Your task to perform on an android device: Show me popular games on the Play Store Image 0: 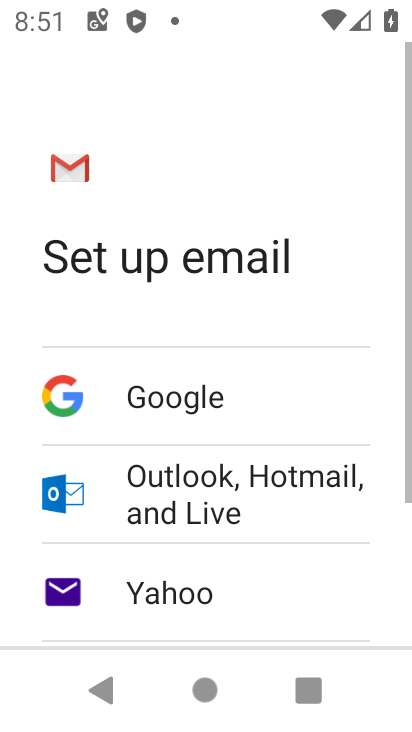
Step 0: press home button
Your task to perform on an android device: Show me popular games on the Play Store Image 1: 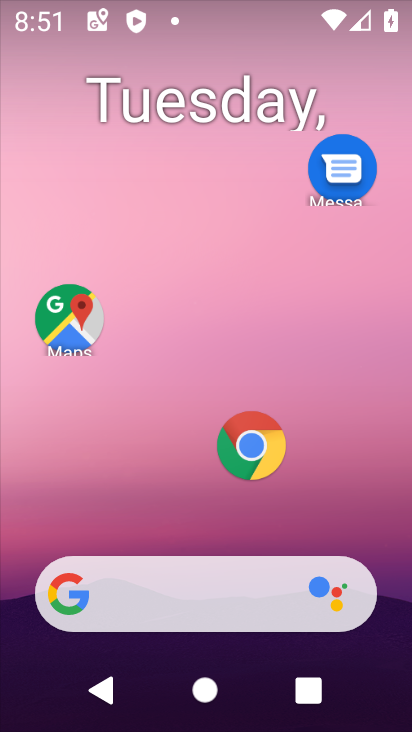
Step 1: drag from (7, 730) to (384, 173)
Your task to perform on an android device: Show me popular games on the Play Store Image 2: 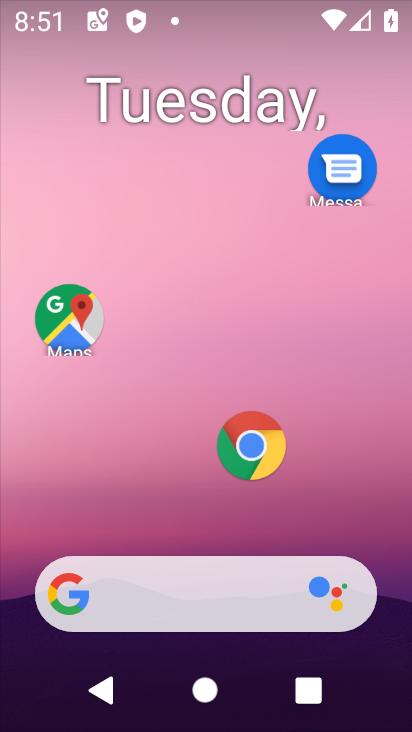
Step 2: drag from (65, 561) to (200, 290)
Your task to perform on an android device: Show me popular games on the Play Store Image 3: 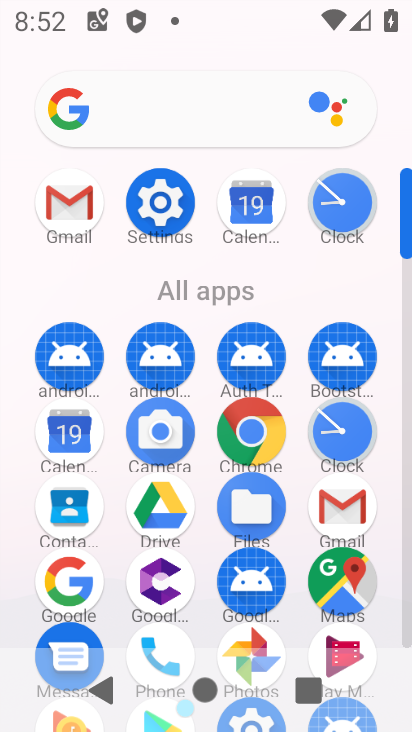
Step 3: click (139, 212)
Your task to perform on an android device: Show me popular games on the Play Store Image 4: 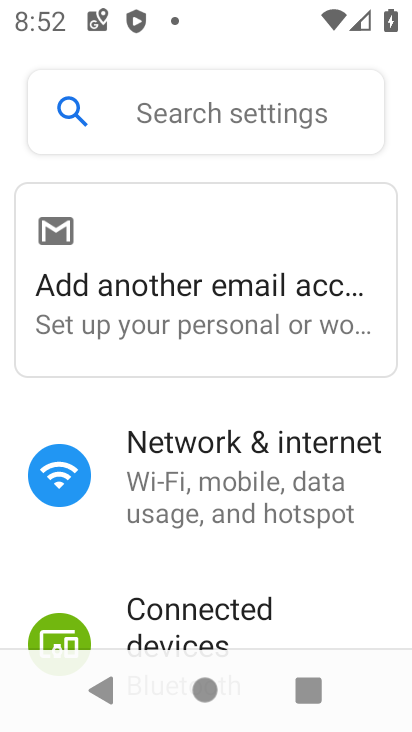
Step 4: press back button
Your task to perform on an android device: Show me popular games on the Play Store Image 5: 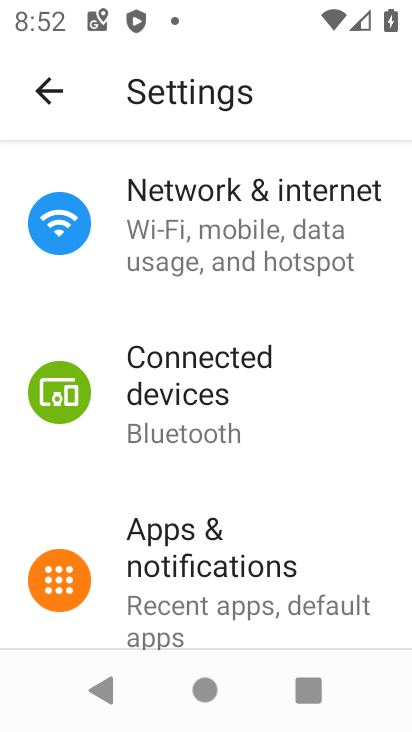
Step 5: press back button
Your task to perform on an android device: Show me popular games on the Play Store Image 6: 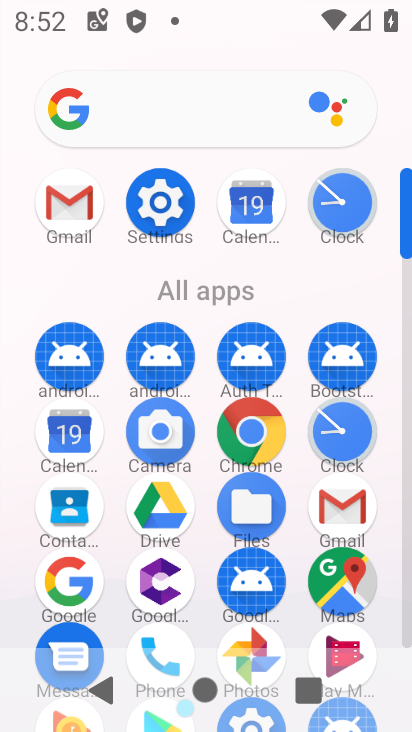
Step 6: drag from (20, 629) to (205, 260)
Your task to perform on an android device: Show me popular games on the Play Store Image 7: 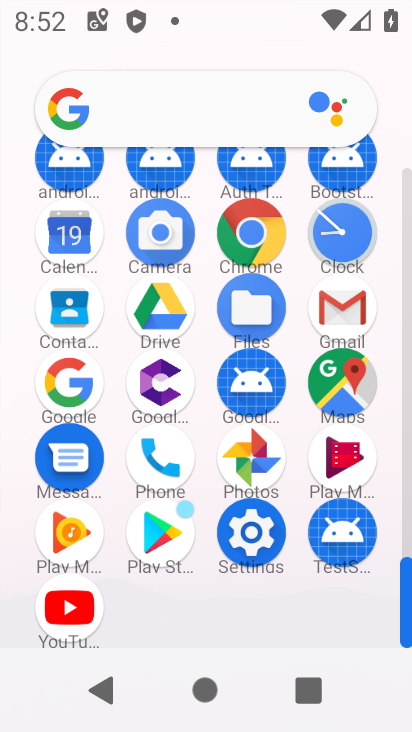
Step 7: click (146, 538)
Your task to perform on an android device: Show me popular games on the Play Store Image 8: 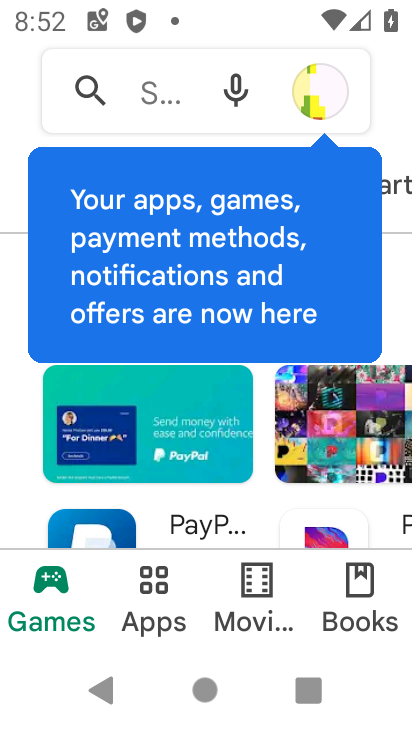
Step 8: click (38, 586)
Your task to perform on an android device: Show me popular games on the Play Store Image 9: 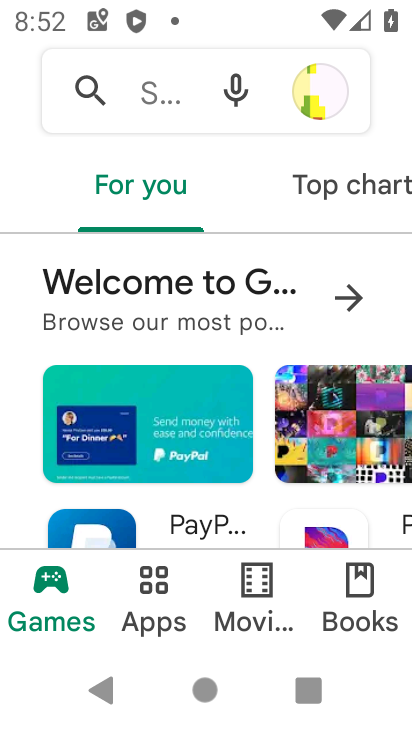
Step 9: click (47, 598)
Your task to perform on an android device: Show me popular games on the Play Store Image 10: 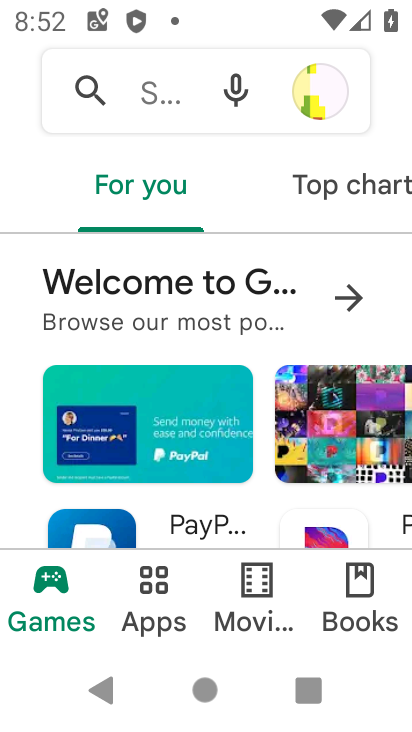
Step 10: task complete